Your task to perform on an android device: Show me popular videos on Youtube Image 0: 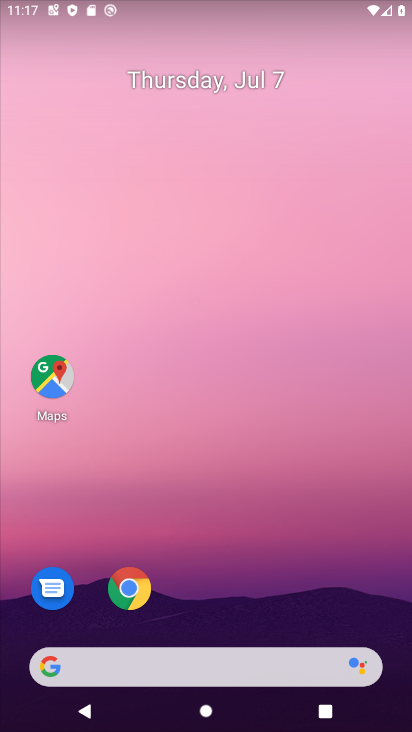
Step 0: drag from (216, 601) to (276, 65)
Your task to perform on an android device: Show me popular videos on Youtube Image 1: 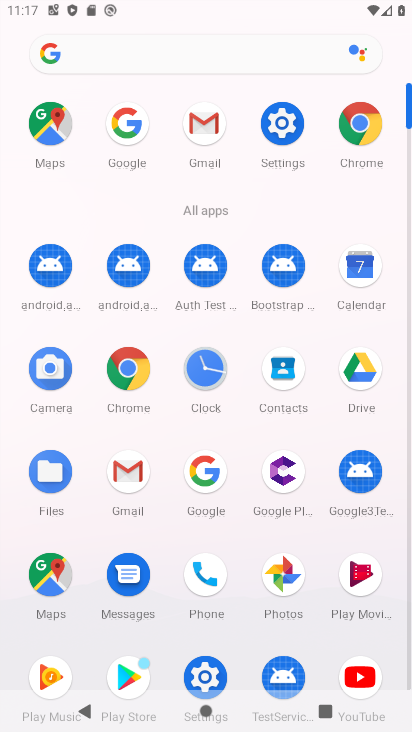
Step 1: click (360, 677)
Your task to perform on an android device: Show me popular videos on Youtube Image 2: 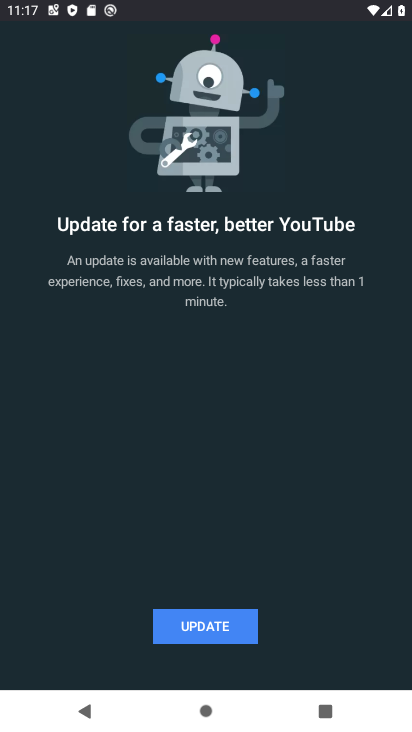
Step 2: click (201, 636)
Your task to perform on an android device: Show me popular videos on Youtube Image 3: 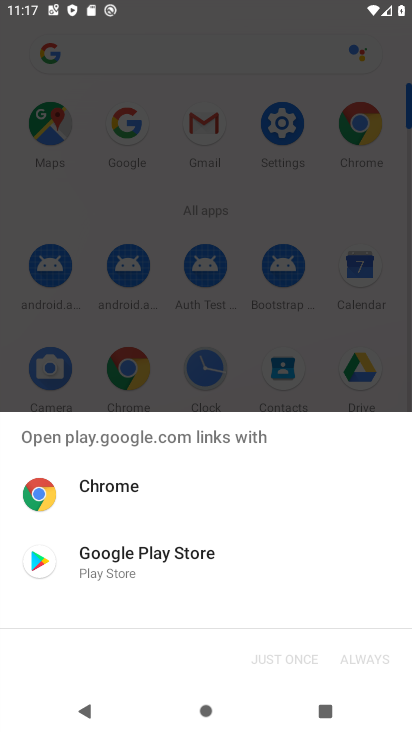
Step 3: click (135, 572)
Your task to perform on an android device: Show me popular videos on Youtube Image 4: 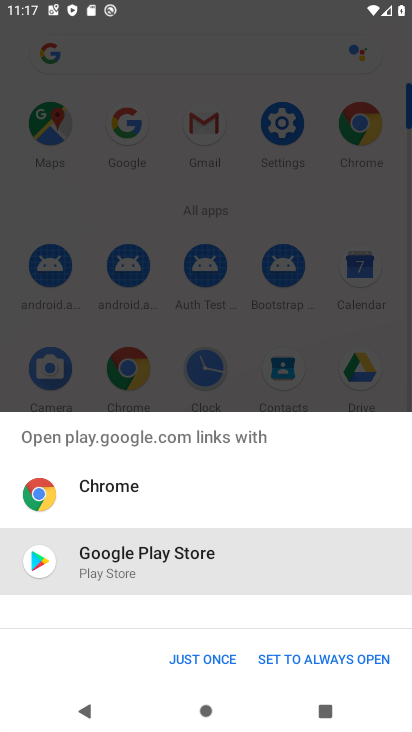
Step 4: click (200, 654)
Your task to perform on an android device: Show me popular videos on Youtube Image 5: 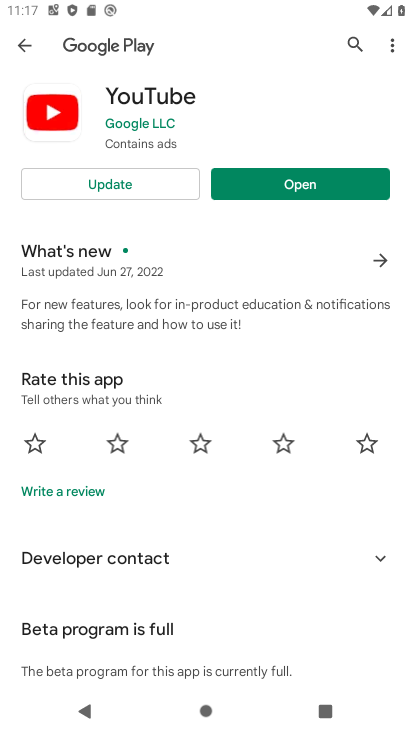
Step 5: click (133, 182)
Your task to perform on an android device: Show me popular videos on Youtube Image 6: 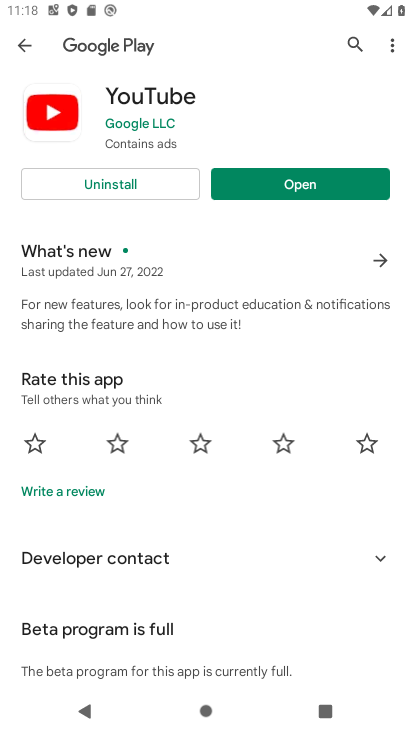
Step 6: click (328, 187)
Your task to perform on an android device: Show me popular videos on Youtube Image 7: 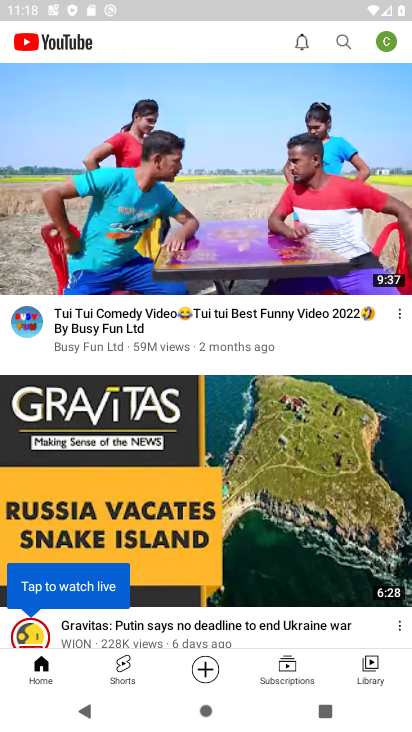
Step 7: task complete